Your task to perform on an android device: search for starred emails in the gmail app Image 0: 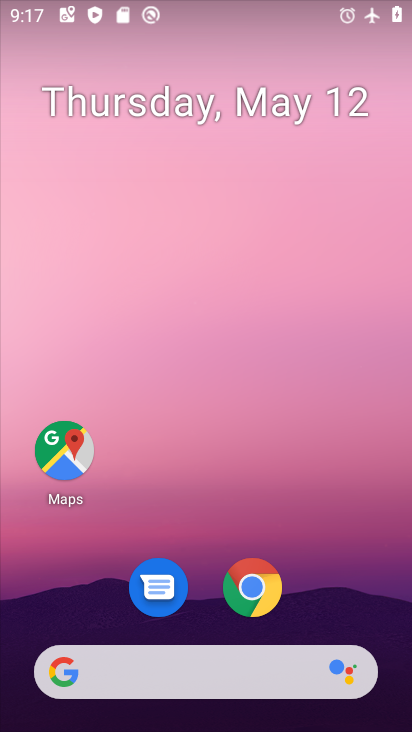
Step 0: drag from (330, 594) to (338, 186)
Your task to perform on an android device: search for starred emails in the gmail app Image 1: 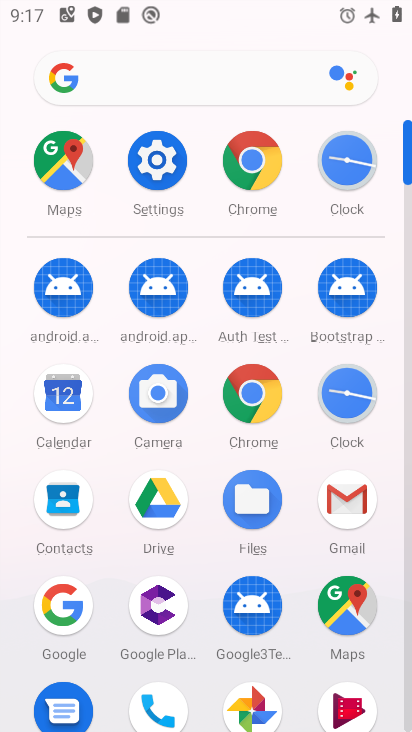
Step 1: click (354, 487)
Your task to perform on an android device: search for starred emails in the gmail app Image 2: 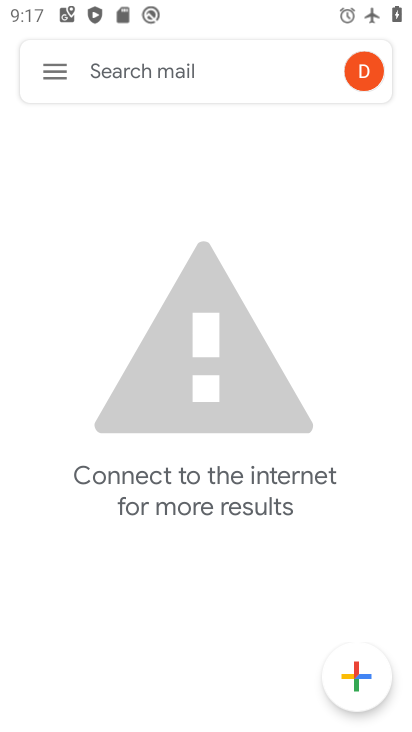
Step 2: click (66, 61)
Your task to perform on an android device: search for starred emails in the gmail app Image 3: 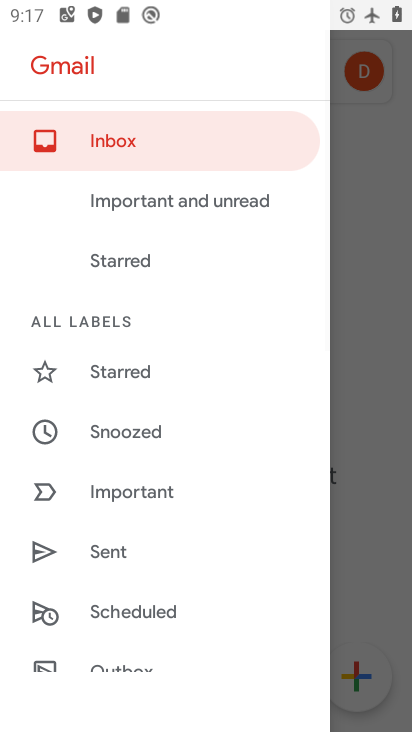
Step 3: click (147, 258)
Your task to perform on an android device: search for starred emails in the gmail app Image 4: 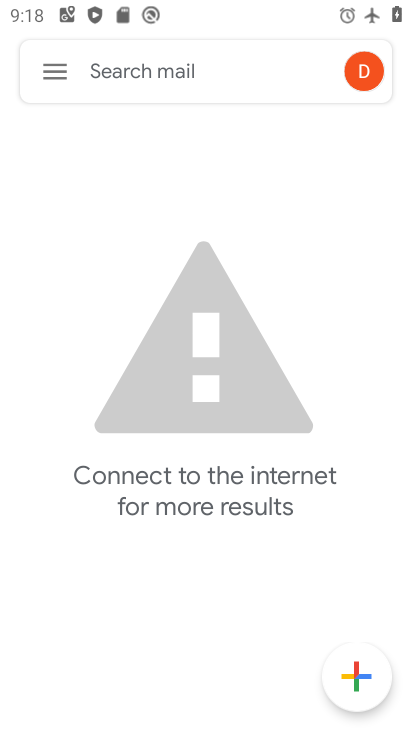
Step 4: task complete